Your task to perform on an android device: Open ESPN.com Image 0: 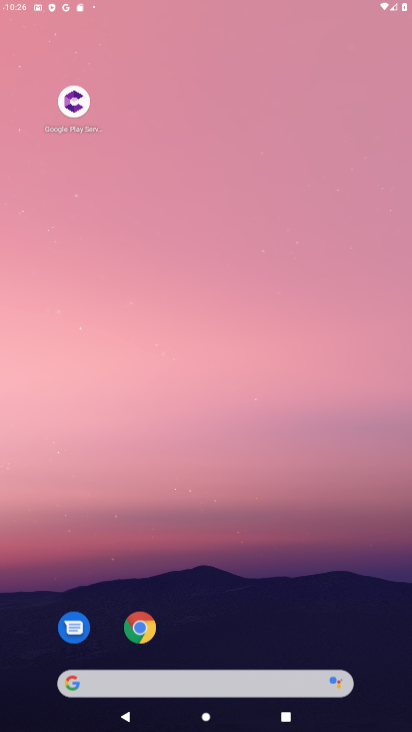
Step 0: click (231, 10)
Your task to perform on an android device: Open ESPN.com Image 1: 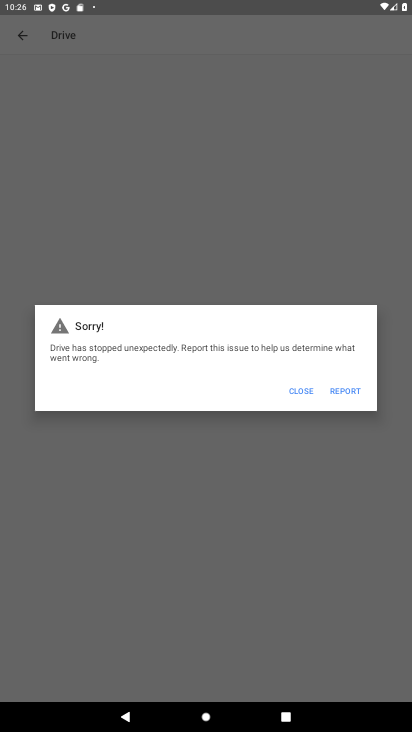
Step 1: press home button
Your task to perform on an android device: Open ESPN.com Image 2: 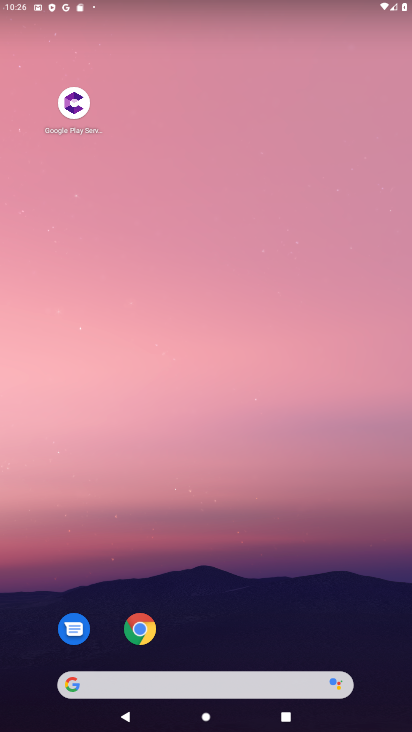
Step 2: drag from (191, 584) to (160, 66)
Your task to perform on an android device: Open ESPN.com Image 3: 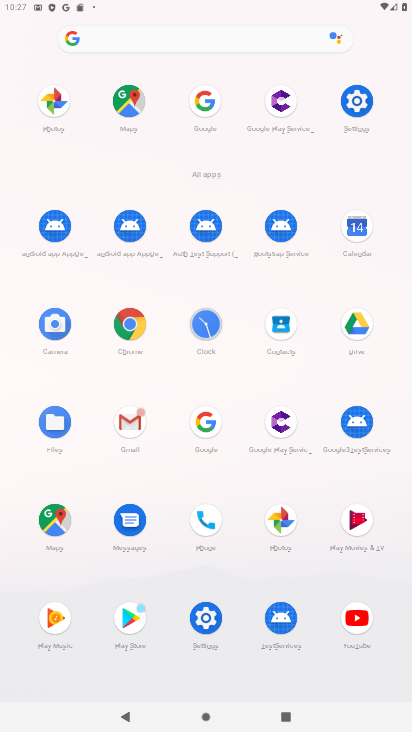
Step 3: click (134, 328)
Your task to perform on an android device: Open ESPN.com Image 4: 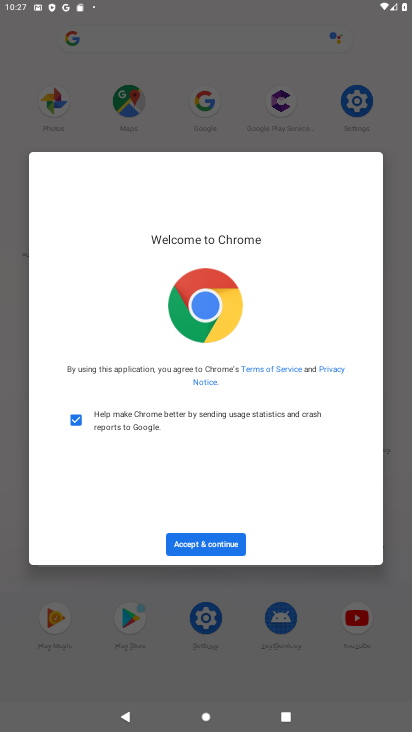
Step 4: click (175, 547)
Your task to perform on an android device: Open ESPN.com Image 5: 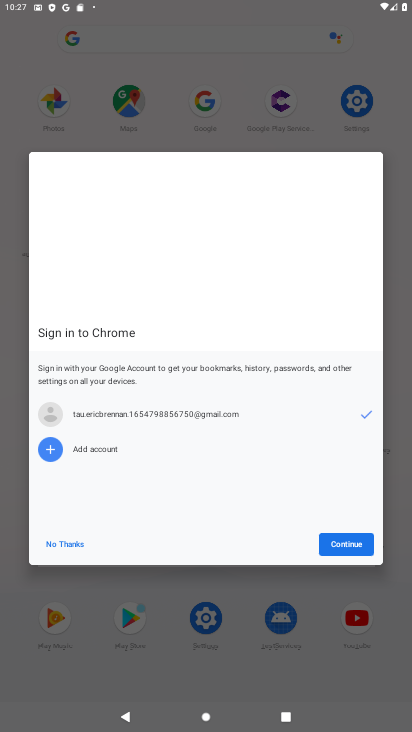
Step 5: click (63, 536)
Your task to perform on an android device: Open ESPN.com Image 6: 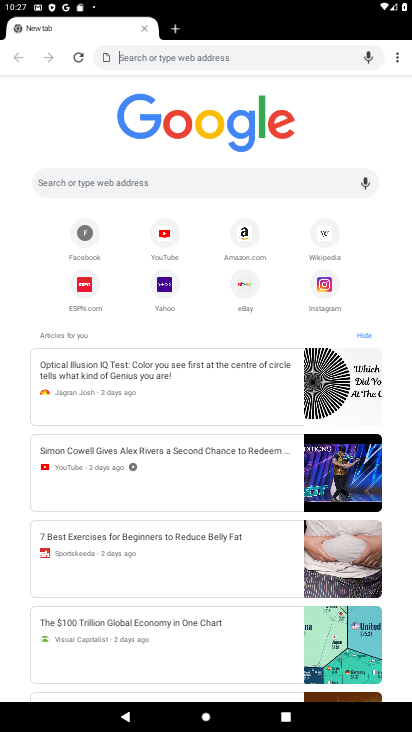
Step 6: click (82, 283)
Your task to perform on an android device: Open ESPN.com Image 7: 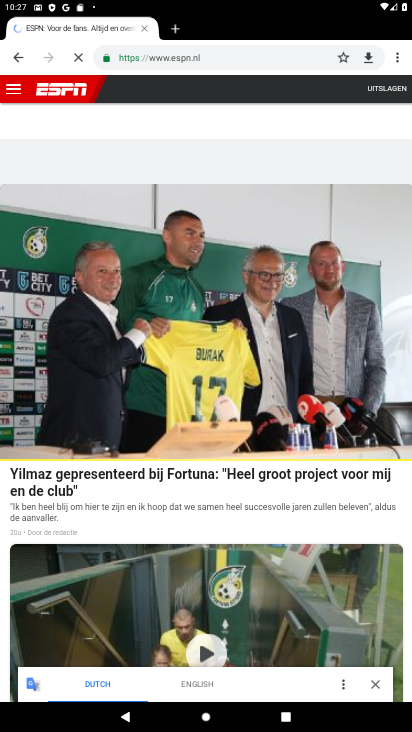
Step 7: task complete